Your task to perform on an android device: change the clock display to analog Image 0: 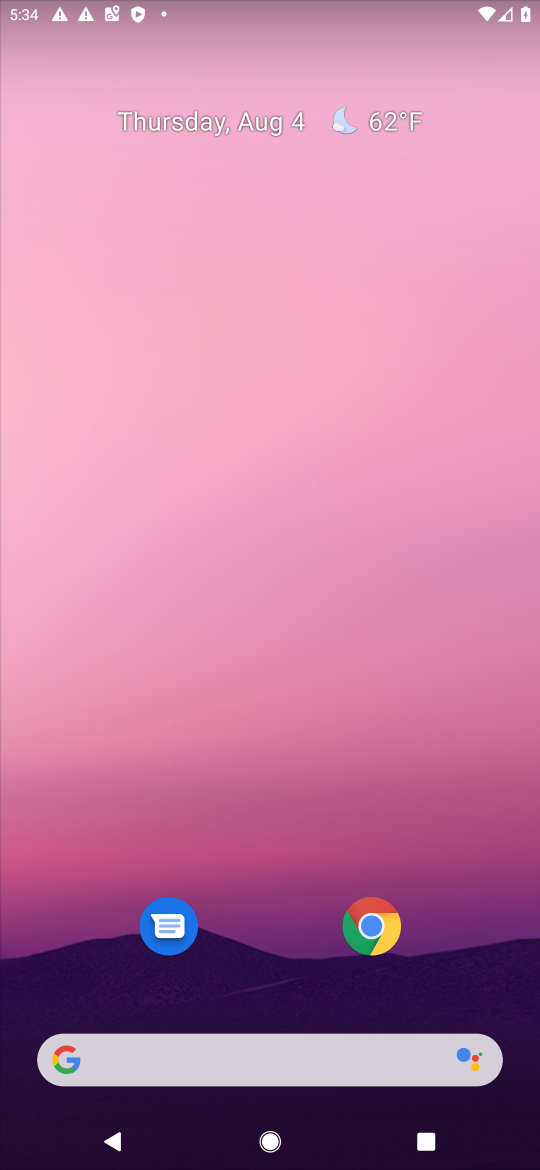
Step 0: drag from (296, 897) to (310, 284)
Your task to perform on an android device: change the clock display to analog Image 1: 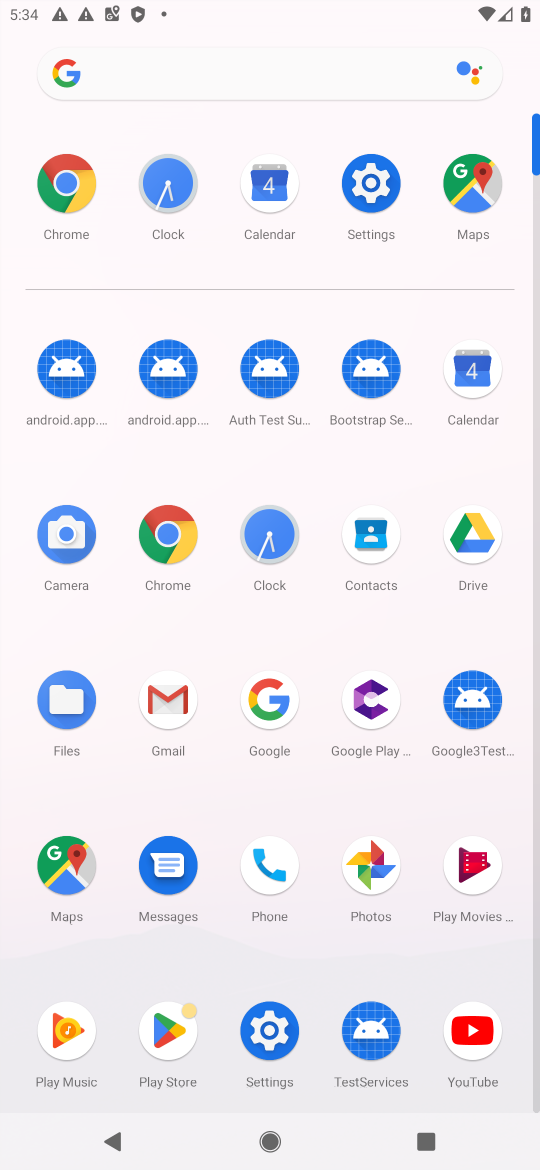
Step 1: click (268, 545)
Your task to perform on an android device: change the clock display to analog Image 2: 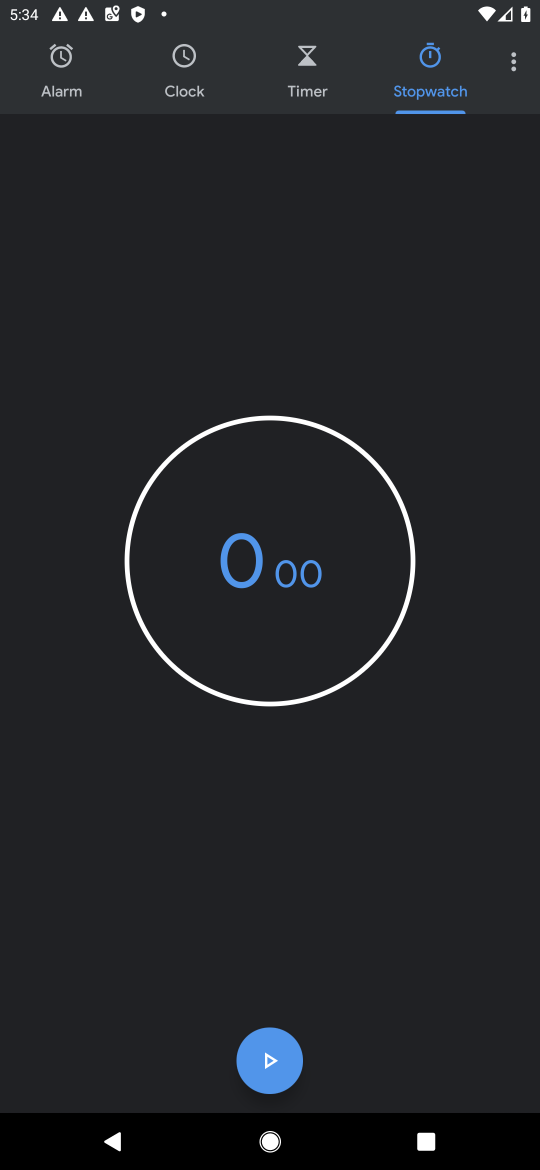
Step 2: click (514, 59)
Your task to perform on an android device: change the clock display to analog Image 3: 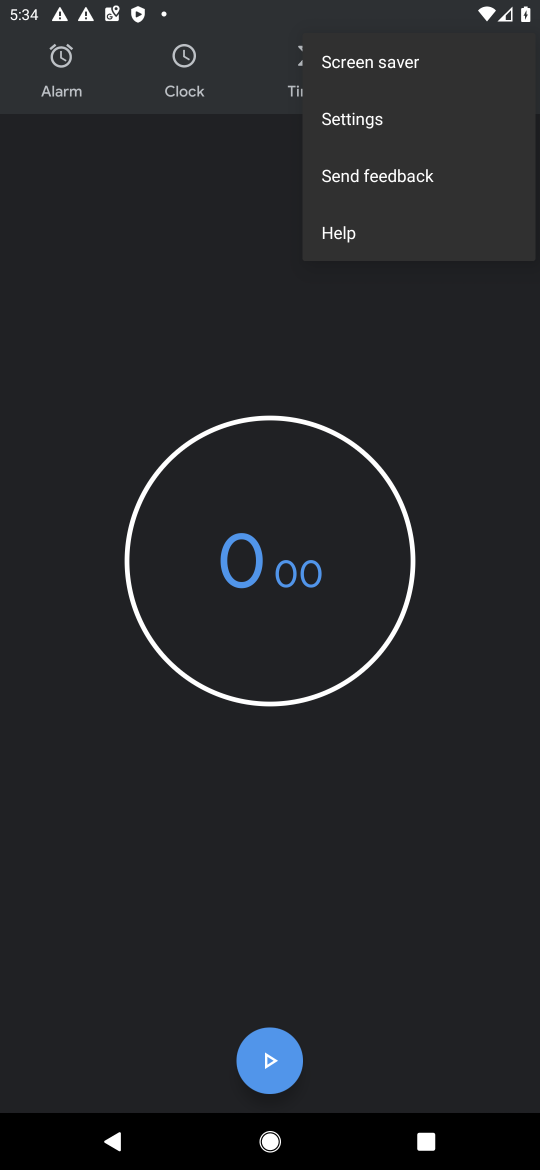
Step 3: click (365, 128)
Your task to perform on an android device: change the clock display to analog Image 4: 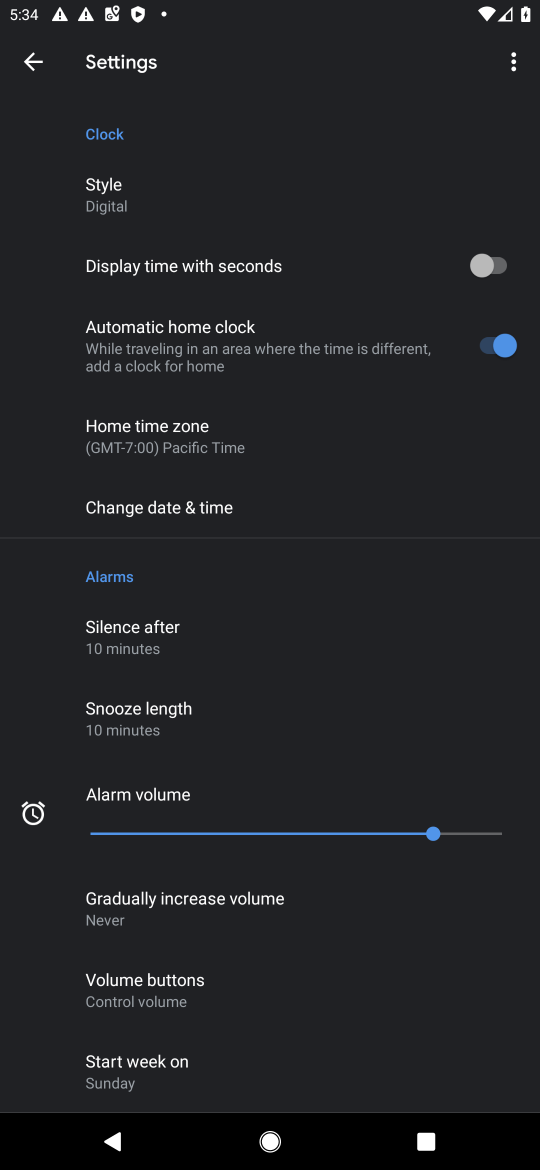
Step 4: click (93, 204)
Your task to perform on an android device: change the clock display to analog Image 5: 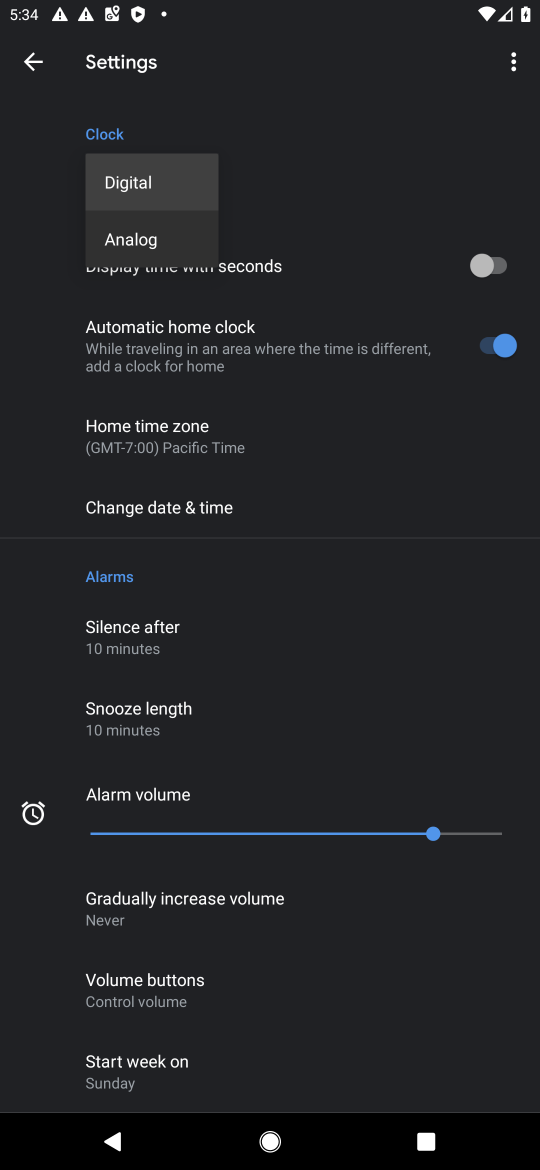
Step 5: click (126, 244)
Your task to perform on an android device: change the clock display to analog Image 6: 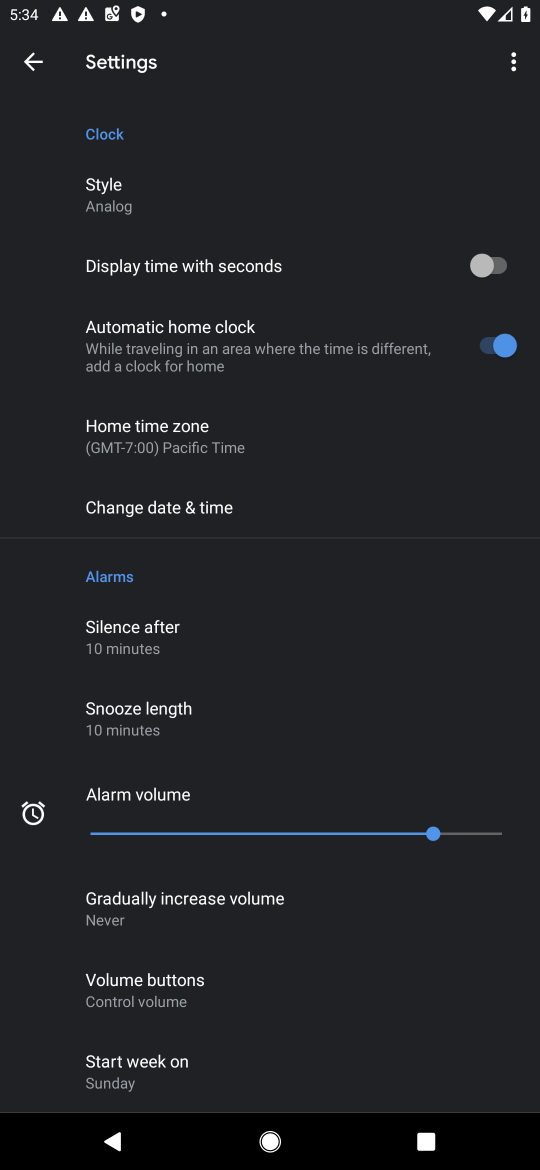
Step 6: task complete